Your task to perform on an android device: Clear the cart on newegg. Search for "razer deathadder" on newegg, select the first entry, and add it to the cart. Image 0: 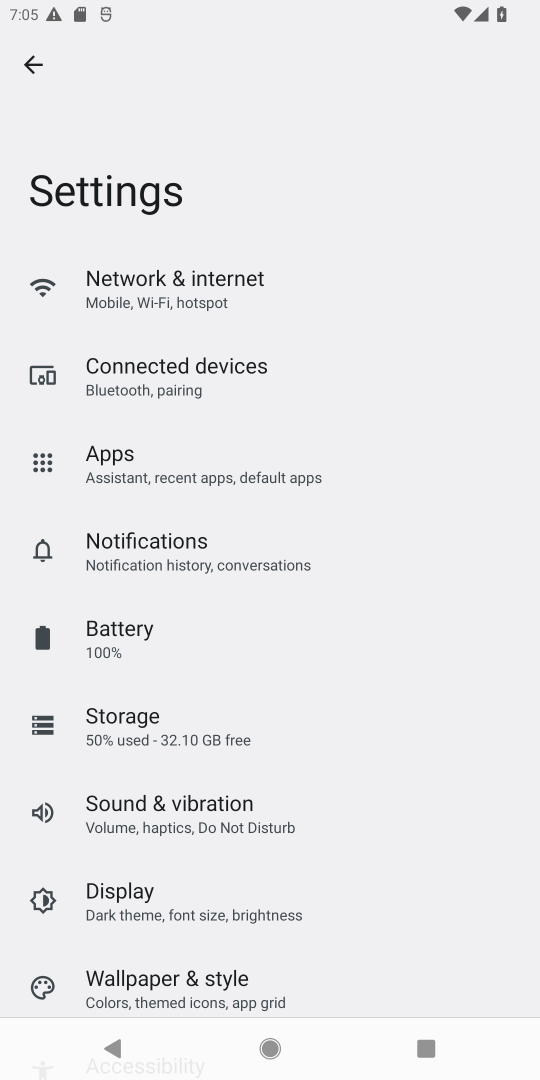
Step 0: press home button
Your task to perform on an android device: Clear the cart on newegg. Search for "razer deathadder" on newegg, select the first entry, and add it to the cart. Image 1: 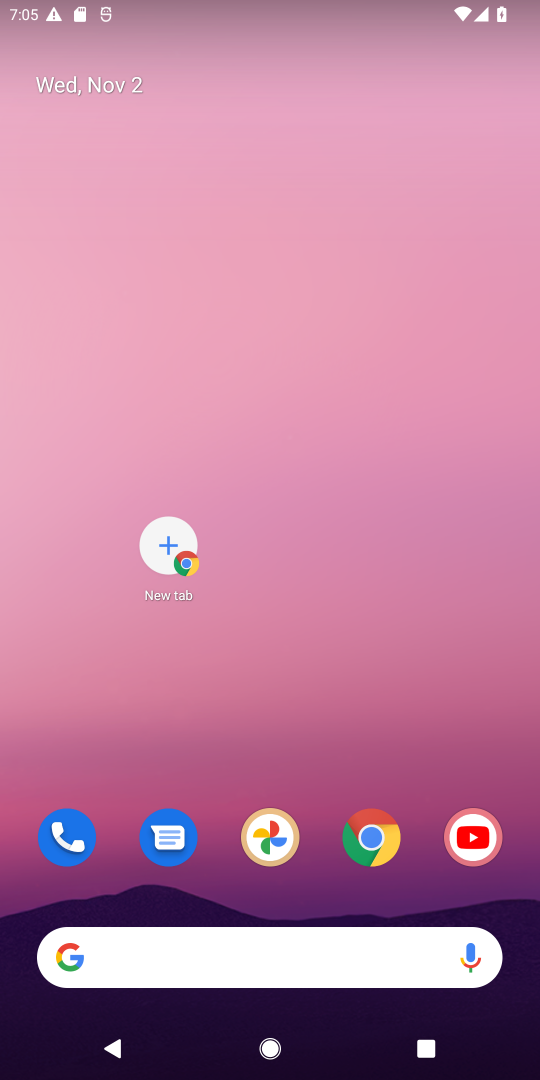
Step 1: click (171, 550)
Your task to perform on an android device: Clear the cart on newegg. Search for "razer deathadder" on newegg, select the first entry, and add it to the cart. Image 2: 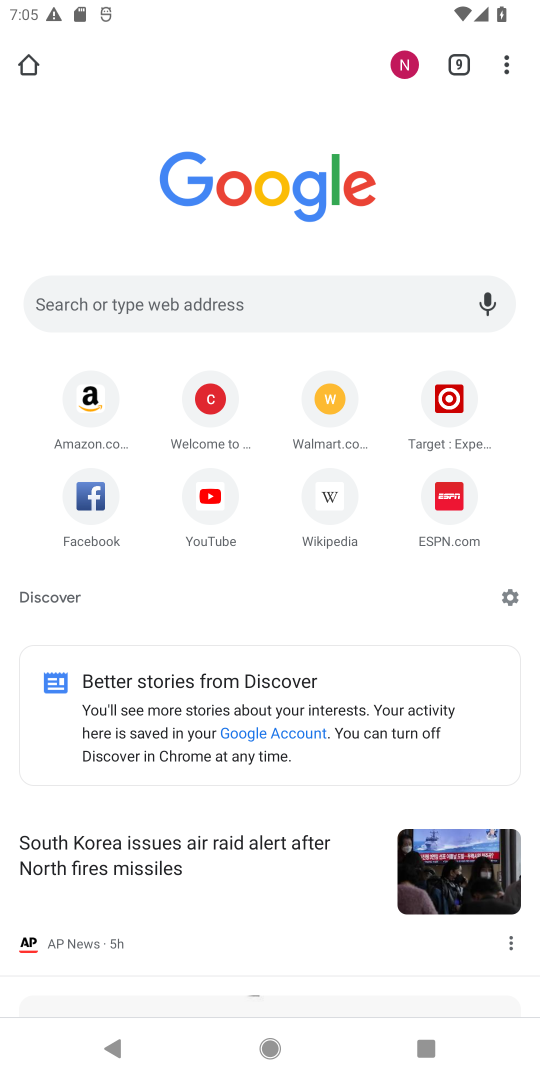
Step 2: click (221, 300)
Your task to perform on an android device: Clear the cart on newegg. Search for "razer deathadder" on newegg, select the first entry, and add it to the cart. Image 3: 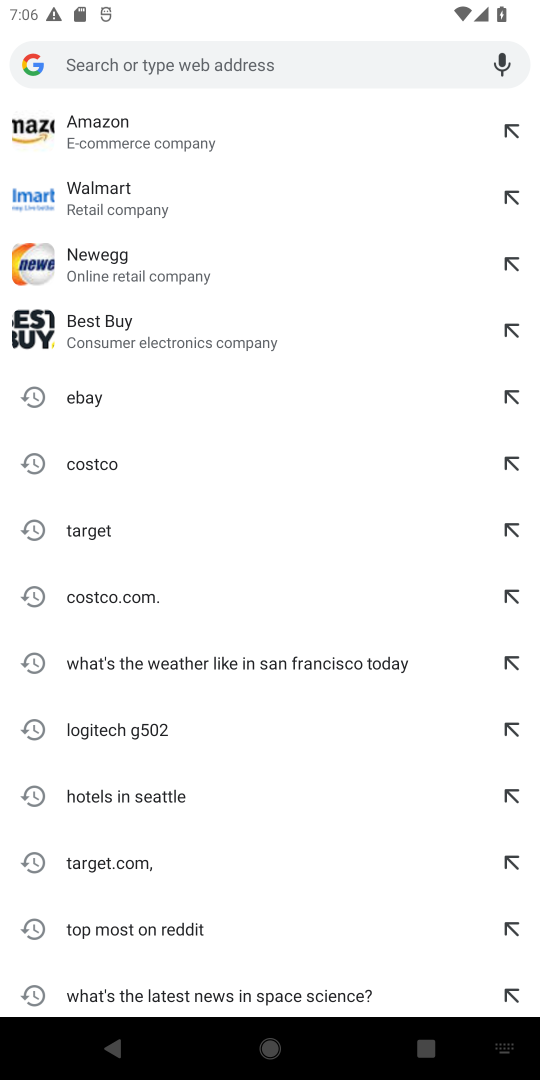
Step 3: type "newegg"
Your task to perform on an android device: Clear the cart on newegg. Search for "razer deathadder" on newegg, select the first entry, and add it to the cart. Image 4: 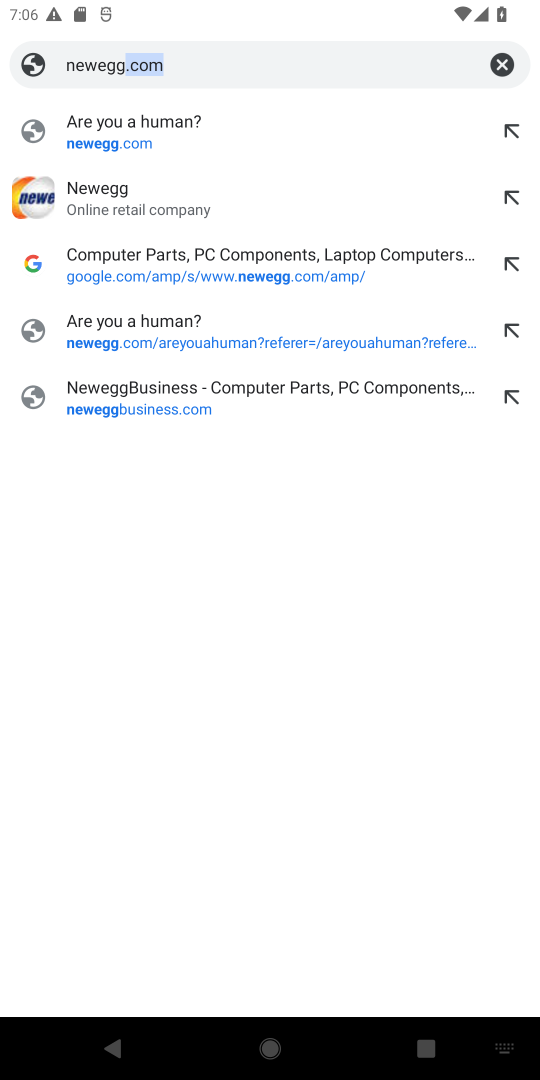
Step 4: click (171, 223)
Your task to perform on an android device: Clear the cart on newegg. Search for "razer deathadder" on newegg, select the first entry, and add it to the cart. Image 5: 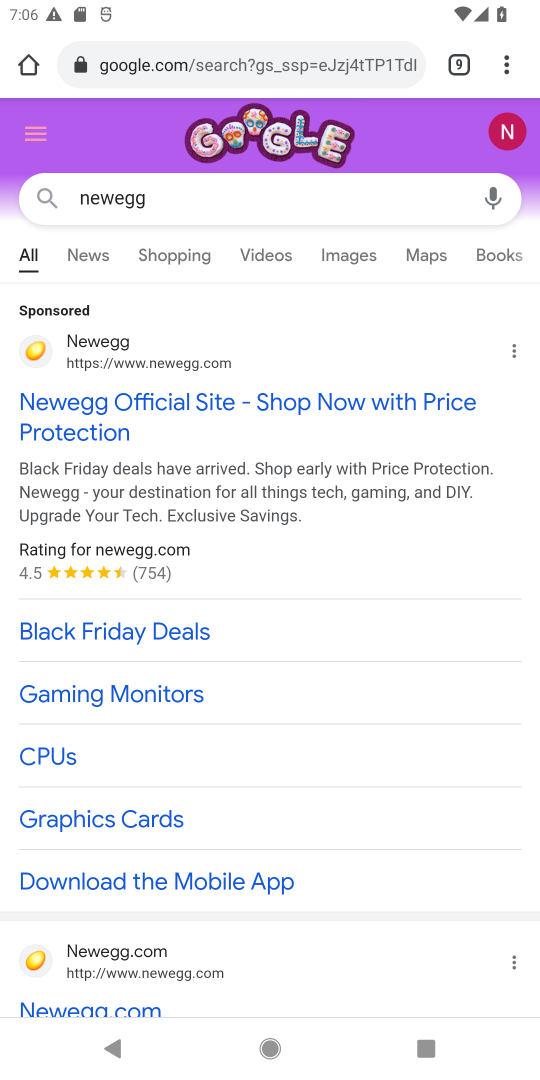
Step 5: click (92, 417)
Your task to perform on an android device: Clear the cart on newegg. Search for "razer deathadder" on newegg, select the first entry, and add it to the cart. Image 6: 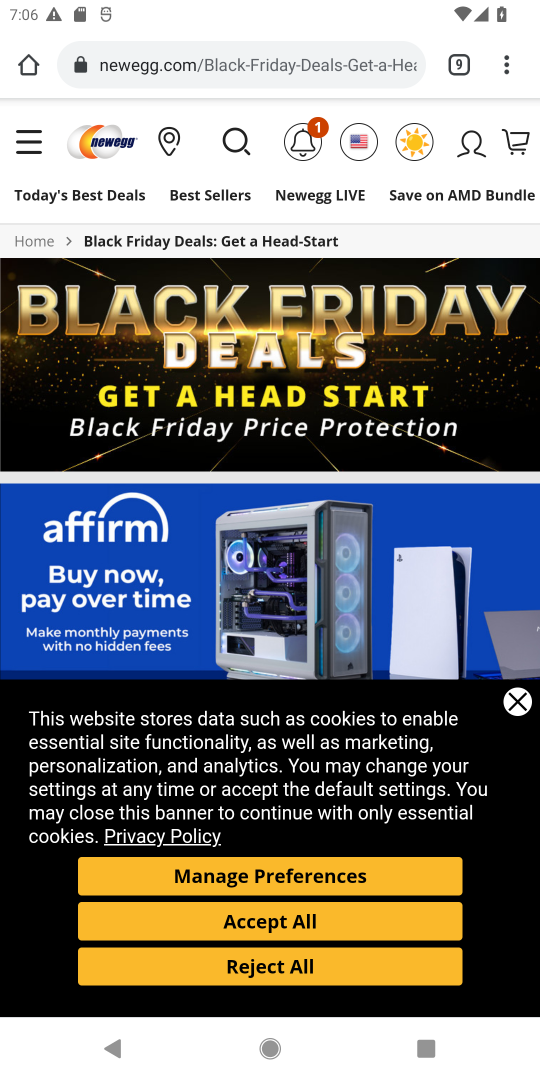
Step 6: click (285, 142)
Your task to perform on an android device: Clear the cart on newegg. Search for "razer deathadder" on newegg, select the first entry, and add it to the cart. Image 7: 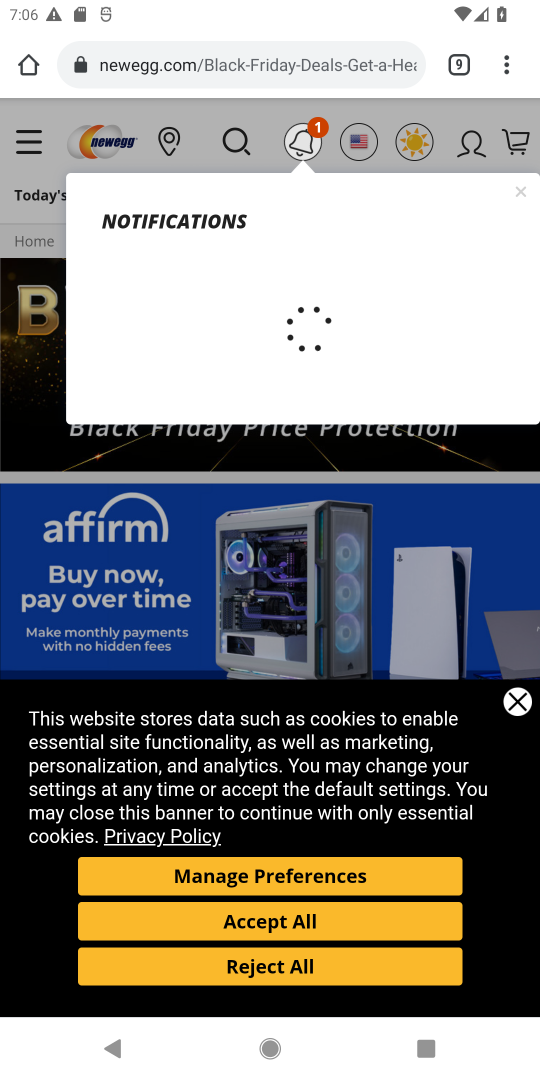
Step 7: click (239, 141)
Your task to perform on an android device: Clear the cart on newegg. Search for "razer deathadder" on newegg, select the first entry, and add it to the cart. Image 8: 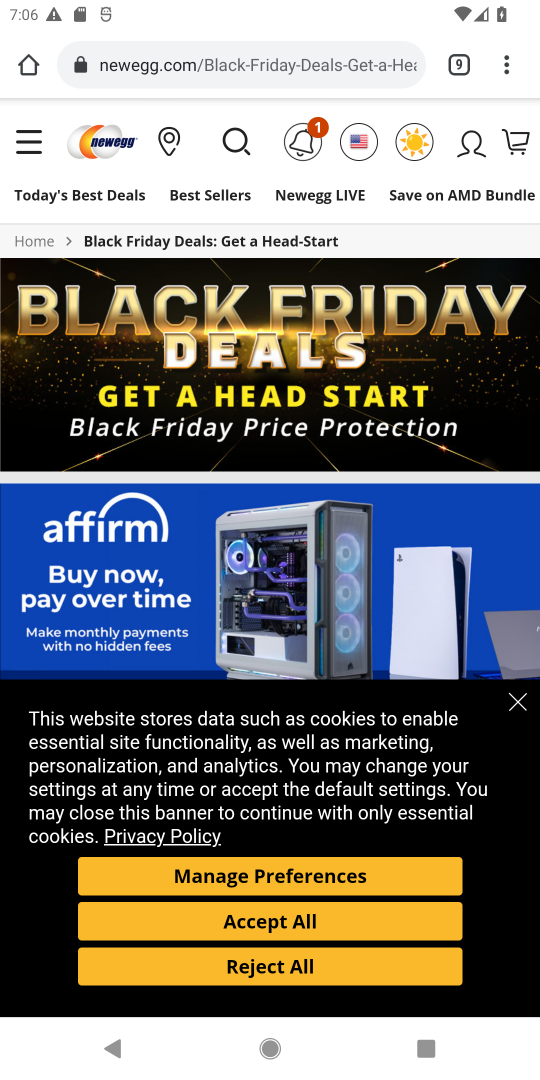
Step 8: click (236, 141)
Your task to perform on an android device: Clear the cart on newegg. Search for "razer deathadder" on newegg, select the first entry, and add it to the cart. Image 9: 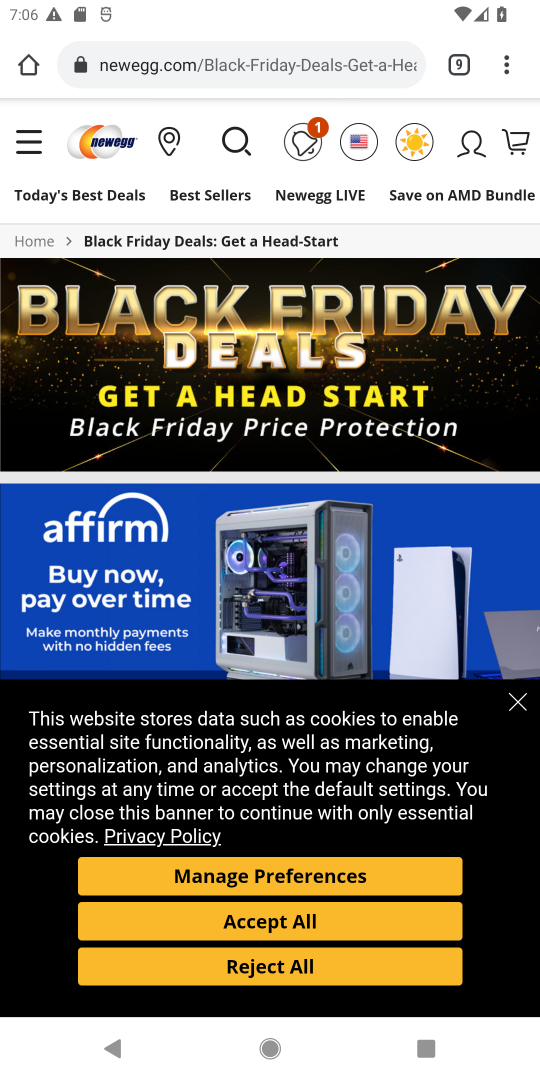
Step 9: click (242, 136)
Your task to perform on an android device: Clear the cart on newegg. Search for "razer deathadder" on newegg, select the first entry, and add it to the cart. Image 10: 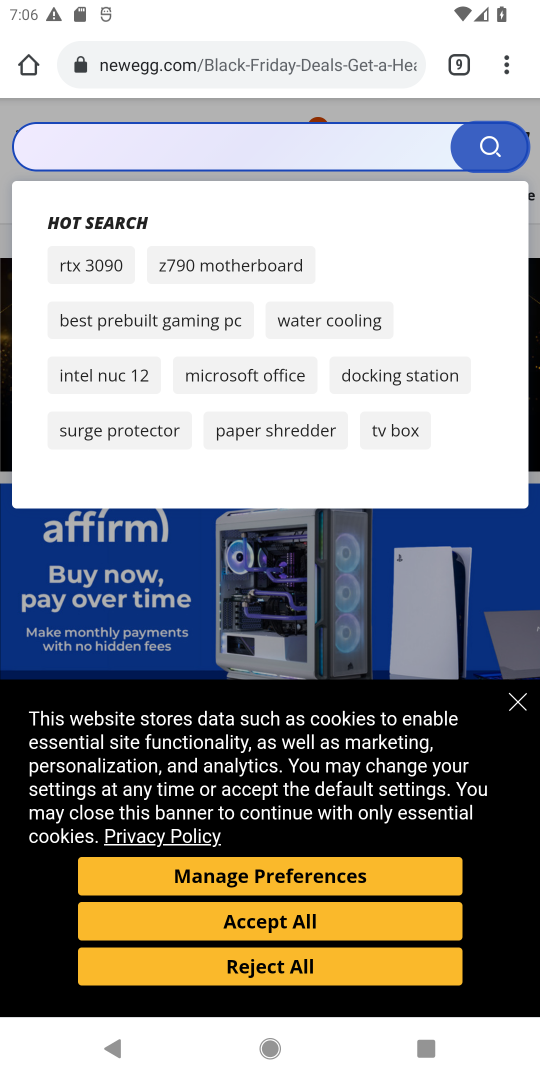
Step 10: click (211, 149)
Your task to perform on an android device: Clear the cart on newegg. Search for "razer deathadder" on newegg, select the first entry, and add it to the cart. Image 11: 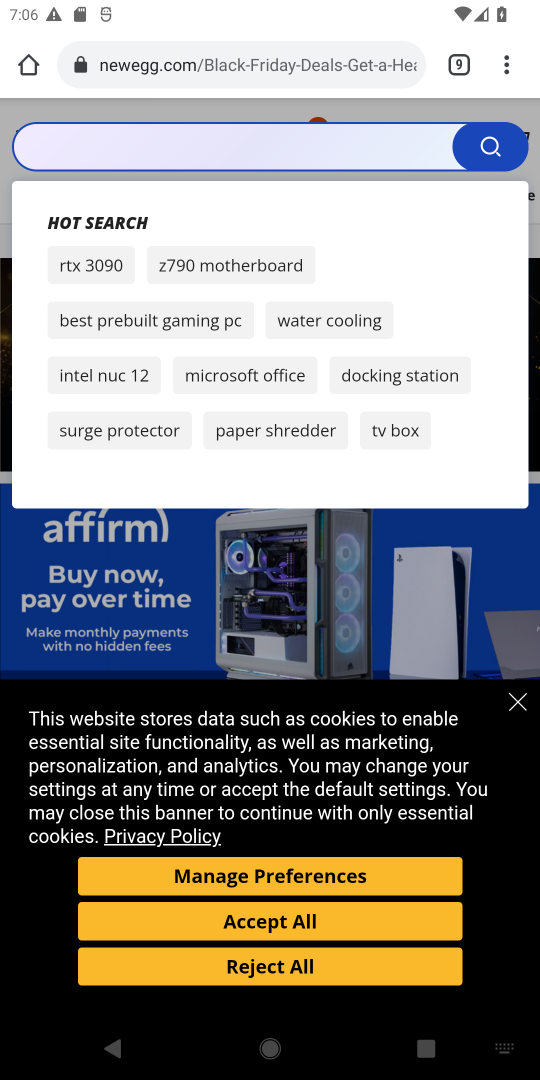
Step 11: click (101, 554)
Your task to perform on an android device: Clear the cart on newegg. Search for "razer deathadder" on newegg, select the first entry, and add it to the cart. Image 12: 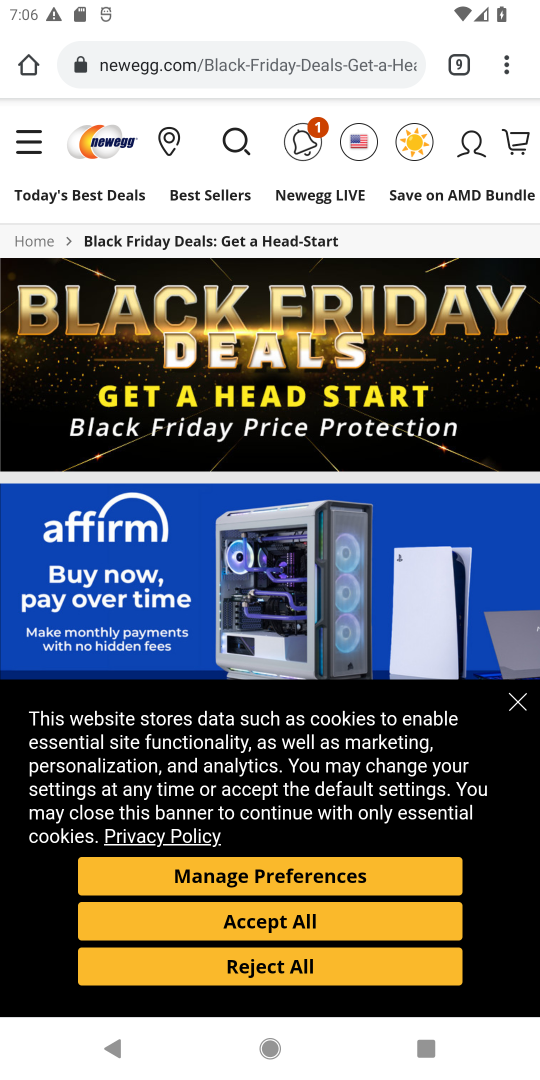
Step 12: click (510, 143)
Your task to perform on an android device: Clear the cart on newegg. Search for "razer deathadder" on newegg, select the first entry, and add it to the cart. Image 13: 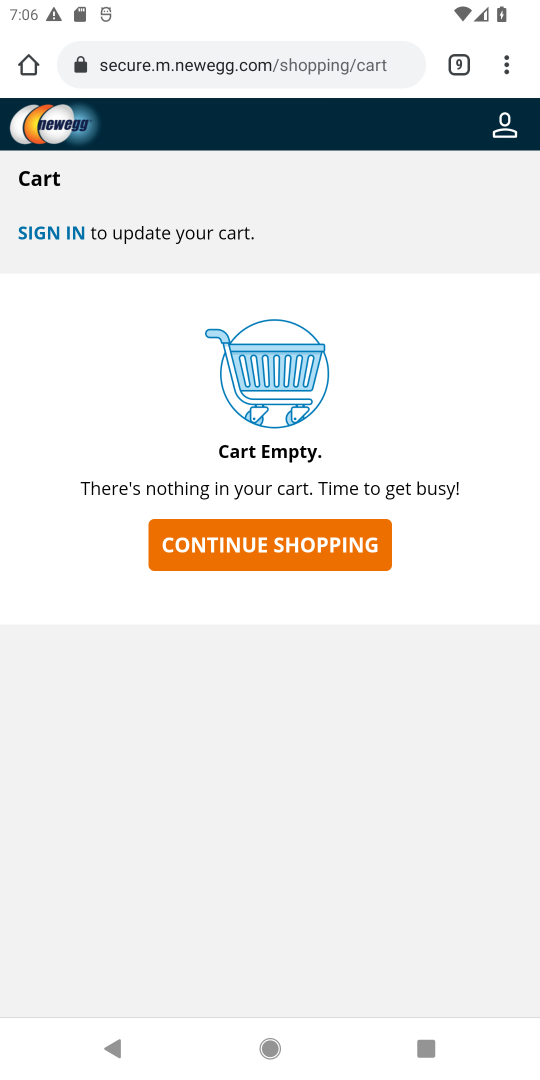
Step 13: press back button
Your task to perform on an android device: Clear the cart on newegg. Search for "razer deathadder" on newegg, select the first entry, and add it to the cart. Image 14: 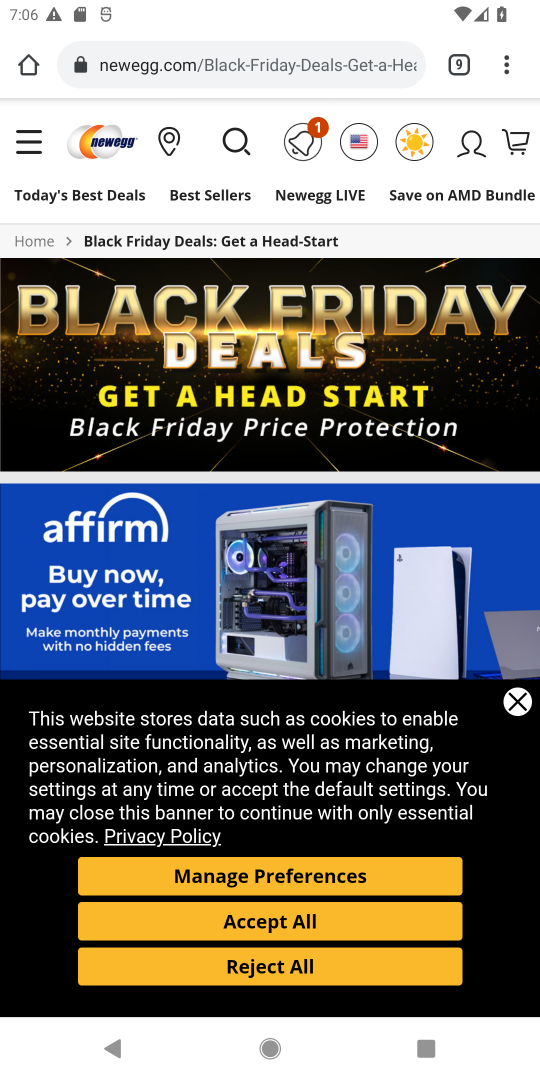
Step 14: click (231, 131)
Your task to perform on an android device: Clear the cart on newegg. Search for "razer deathadder" on newegg, select the first entry, and add it to the cart. Image 15: 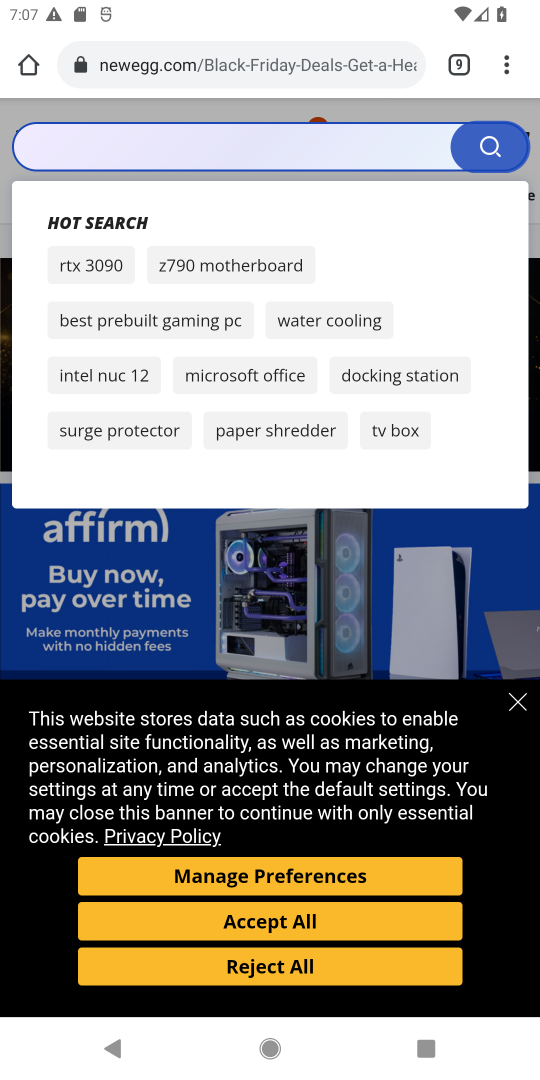
Step 15: click (217, 151)
Your task to perform on an android device: Clear the cart on newegg. Search for "razer deathadder" on newegg, select the first entry, and add it to the cart. Image 16: 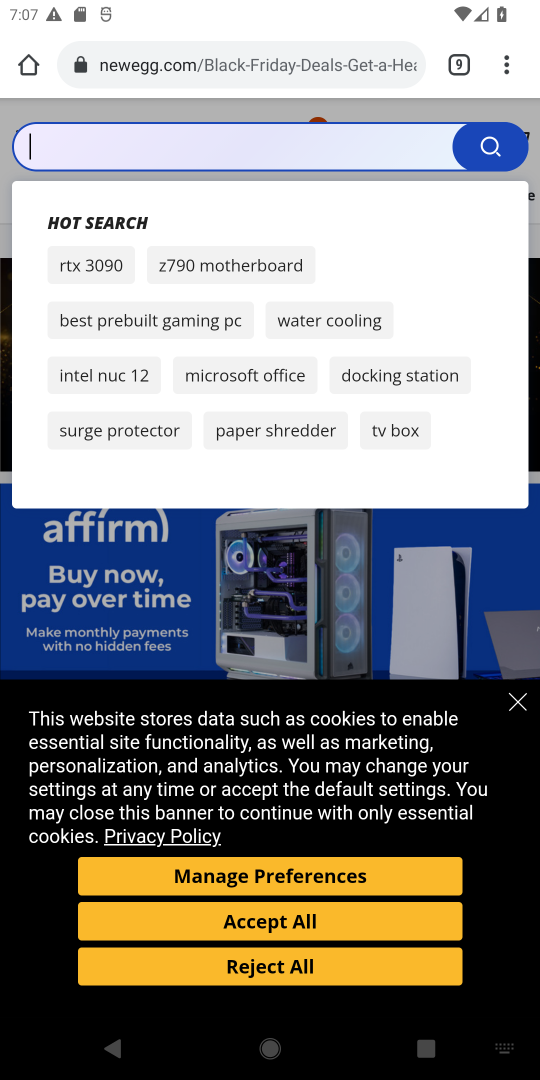
Step 16: type "razer deathadder"
Your task to perform on an android device: Clear the cart on newegg. Search for "razer deathadder" on newegg, select the first entry, and add it to the cart. Image 17: 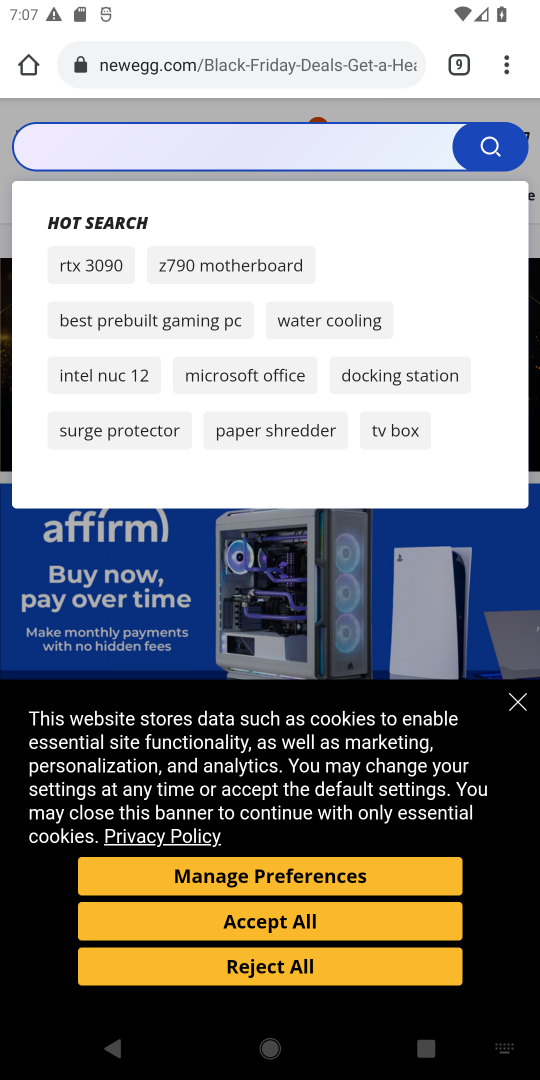
Step 17: type ""
Your task to perform on an android device: Clear the cart on newegg. Search for "razer deathadder" on newegg, select the first entry, and add it to the cart. Image 18: 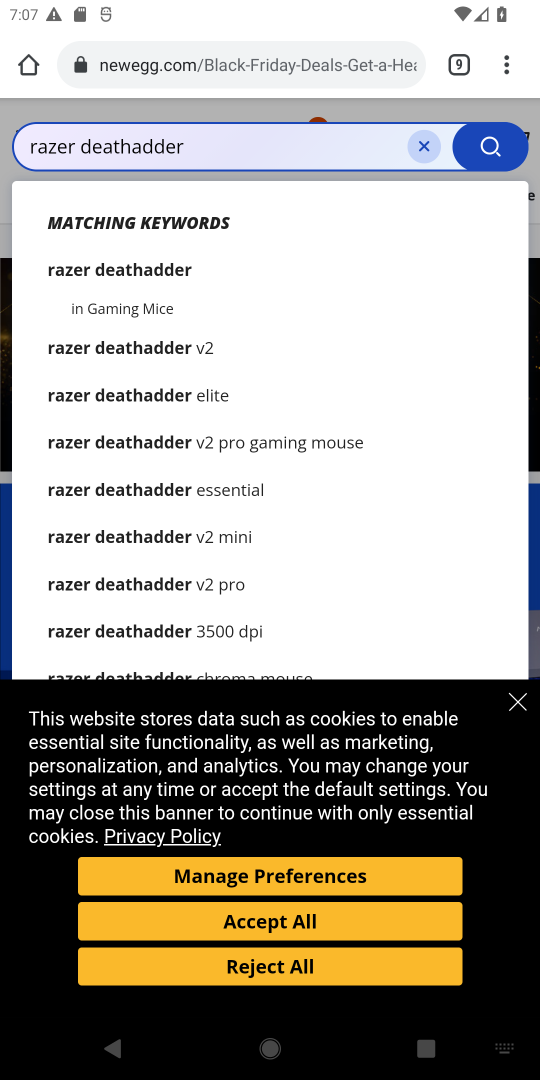
Step 18: click (126, 271)
Your task to perform on an android device: Clear the cart on newegg. Search for "razer deathadder" on newegg, select the first entry, and add it to the cart. Image 19: 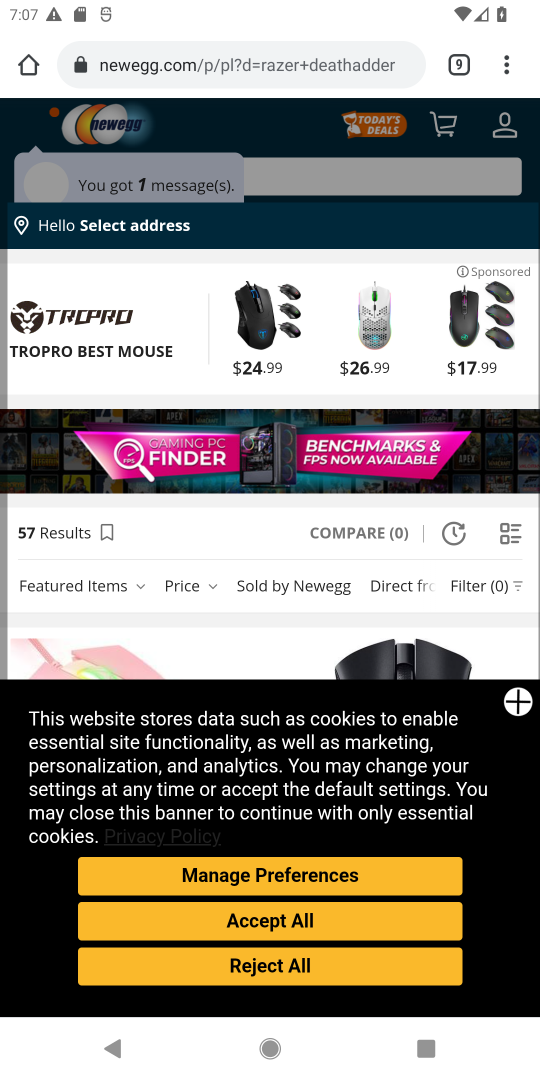
Step 19: click (308, 913)
Your task to perform on an android device: Clear the cart on newegg. Search for "razer deathadder" on newegg, select the first entry, and add it to the cart. Image 20: 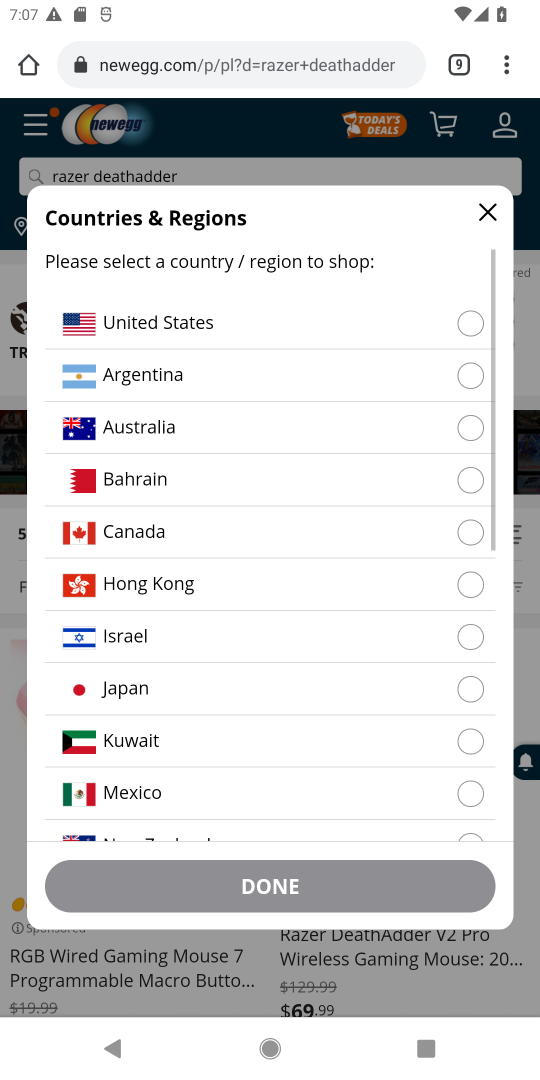
Step 20: click (483, 216)
Your task to perform on an android device: Clear the cart on newegg. Search for "razer deathadder" on newegg, select the first entry, and add it to the cart. Image 21: 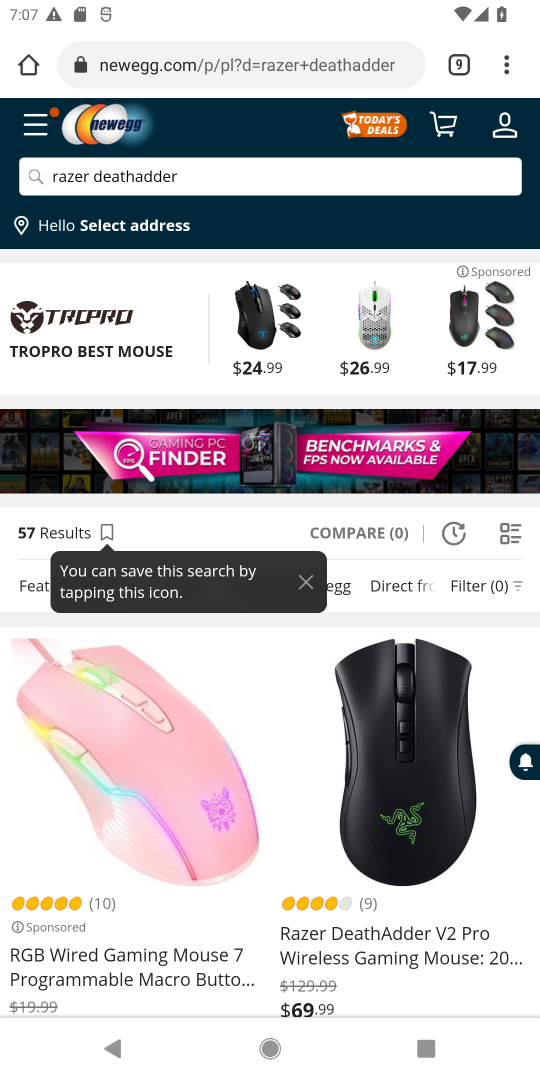
Step 21: click (417, 791)
Your task to perform on an android device: Clear the cart on newegg. Search for "razer deathadder" on newegg, select the first entry, and add it to the cart. Image 22: 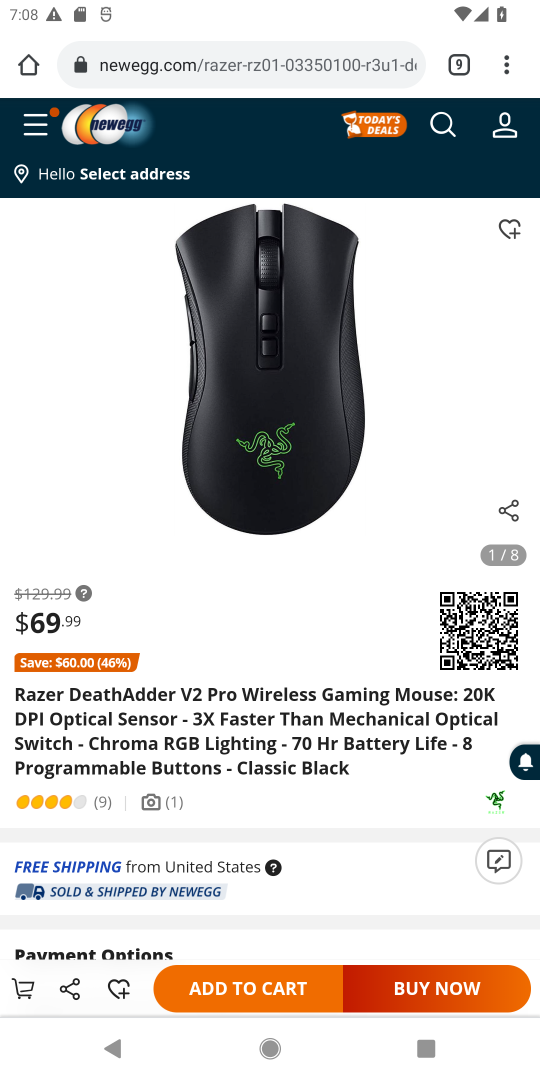
Step 22: click (242, 982)
Your task to perform on an android device: Clear the cart on newegg. Search for "razer deathadder" on newegg, select the first entry, and add it to the cart. Image 23: 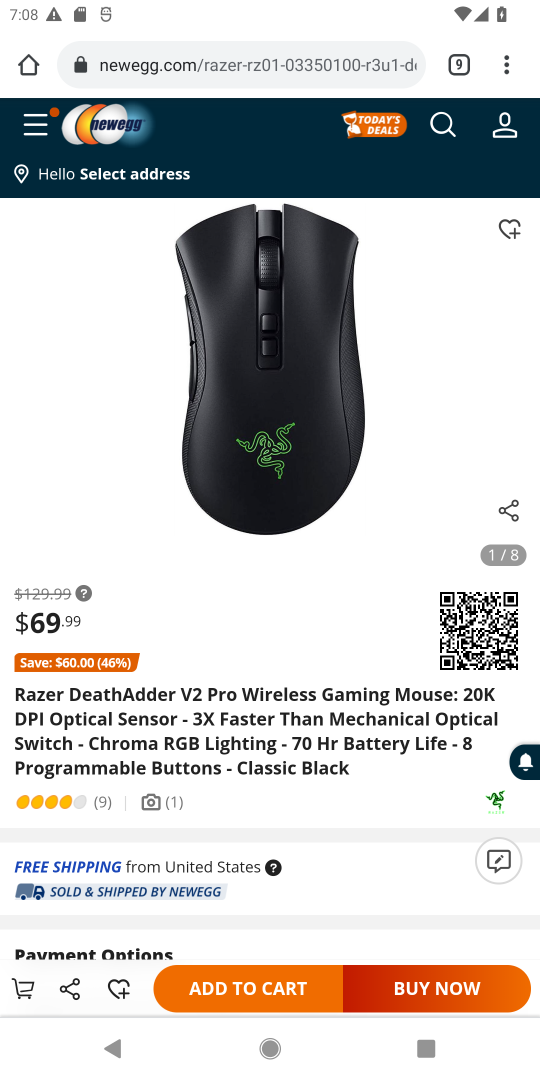
Step 23: click (219, 998)
Your task to perform on an android device: Clear the cart on newegg. Search for "razer deathadder" on newegg, select the first entry, and add it to the cart. Image 24: 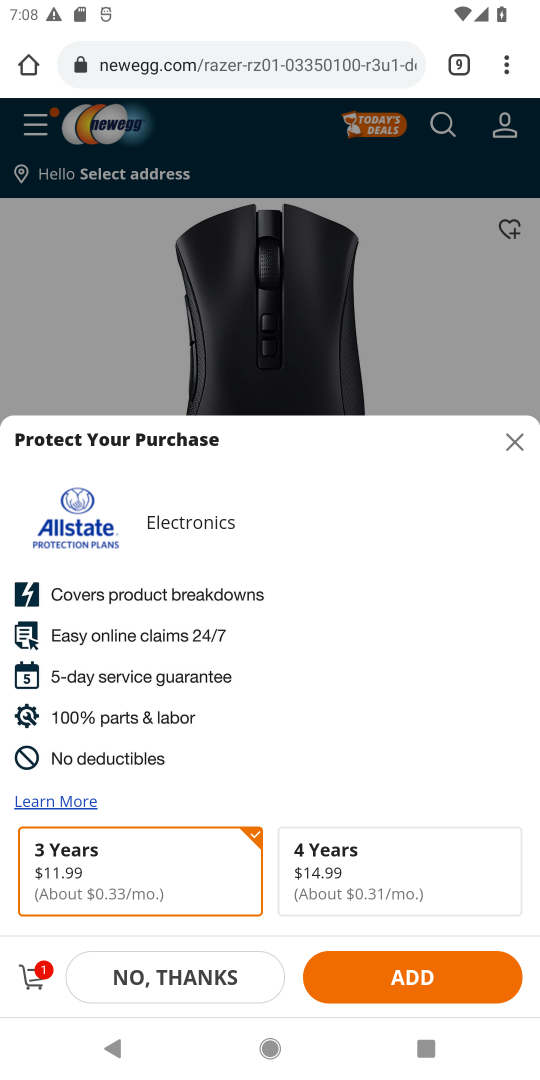
Step 24: click (31, 978)
Your task to perform on an android device: Clear the cart on newegg. Search for "razer deathadder" on newegg, select the first entry, and add it to the cart. Image 25: 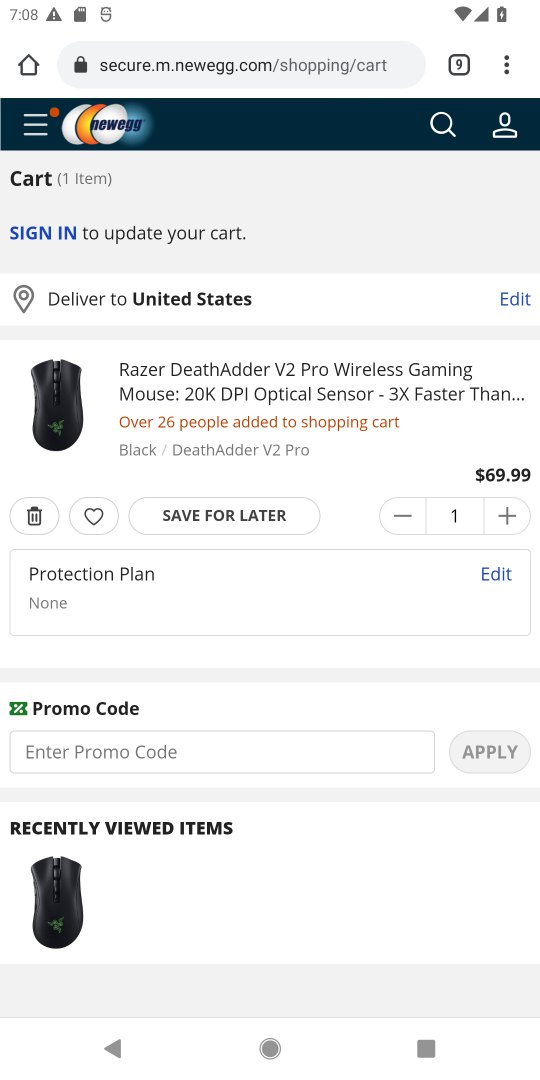
Step 25: drag from (332, 771) to (346, 320)
Your task to perform on an android device: Clear the cart on newegg. Search for "razer deathadder" on newegg, select the first entry, and add it to the cart. Image 26: 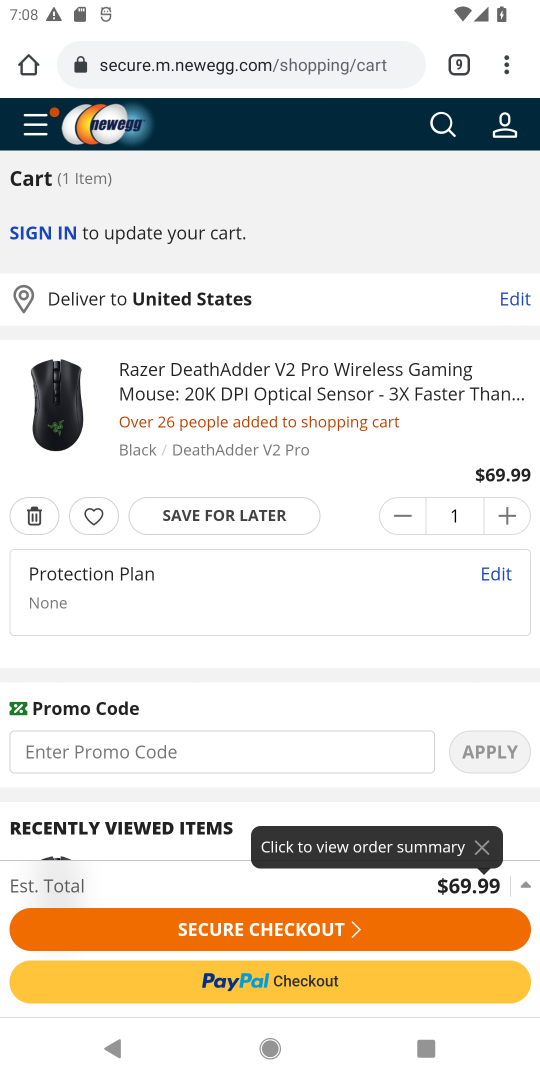
Step 26: click (271, 934)
Your task to perform on an android device: Clear the cart on newegg. Search for "razer deathadder" on newegg, select the first entry, and add it to the cart. Image 27: 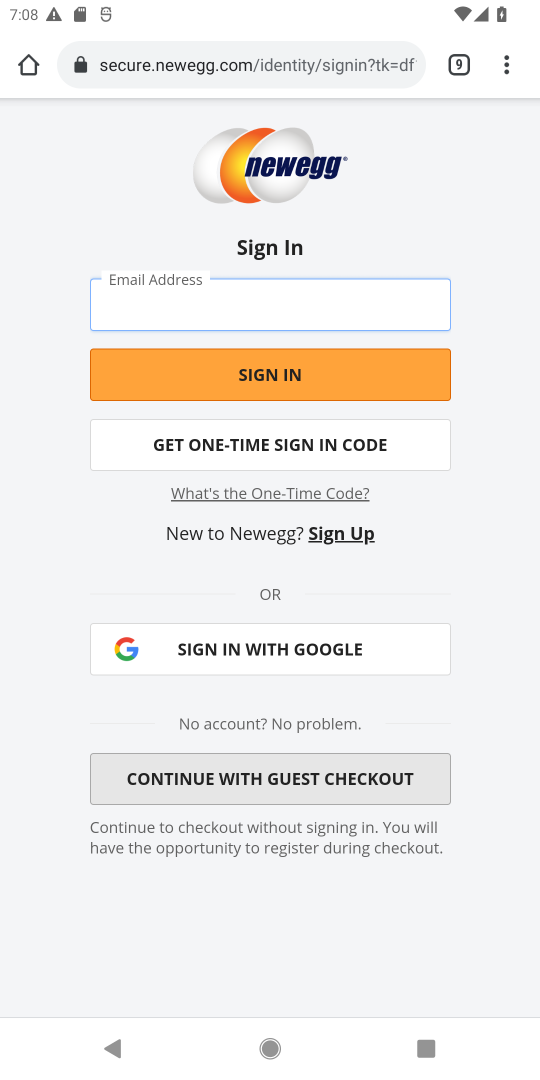
Step 27: task complete